Your task to perform on an android device: set the stopwatch Image 0: 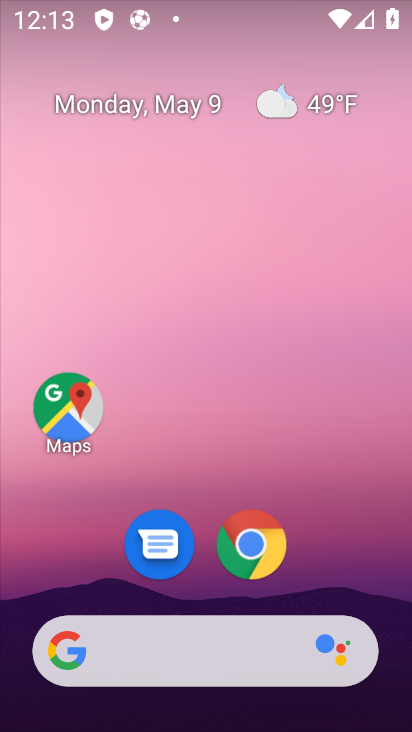
Step 0: drag from (303, 618) to (267, 85)
Your task to perform on an android device: set the stopwatch Image 1: 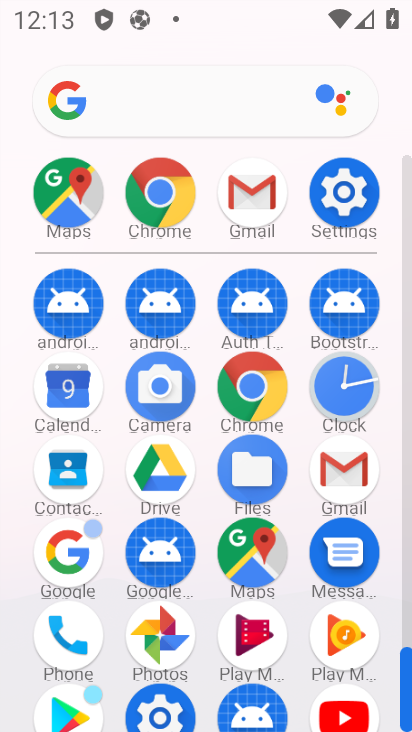
Step 1: click (359, 390)
Your task to perform on an android device: set the stopwatch Image 2: 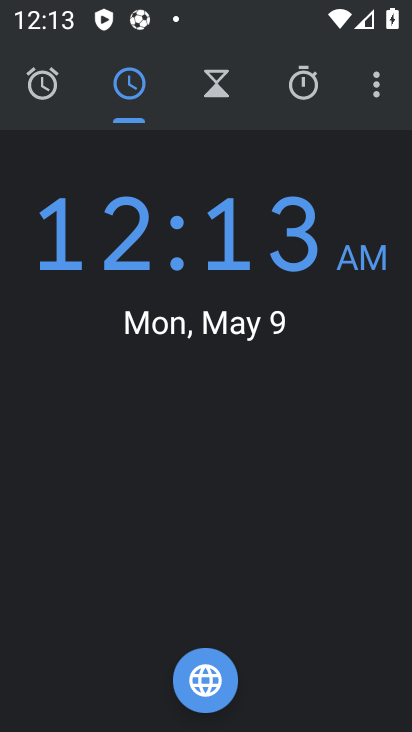
Step 2: click (300, 106)
Your task to perform on an android device: set the stopwatch Image 3: 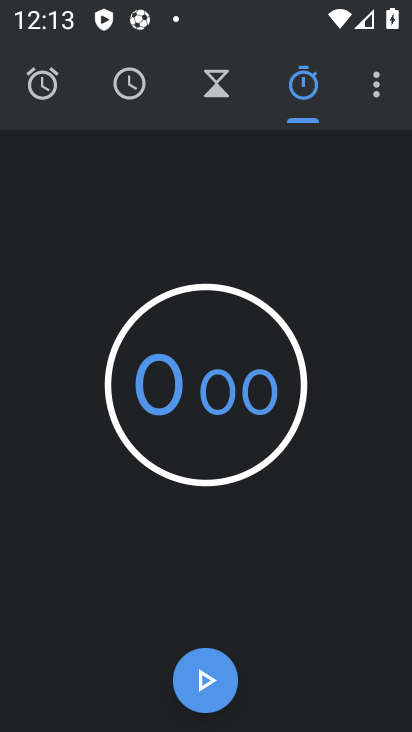
Step 3: click (205, 681)
Your task to perform on an android device: set the stopwatch Image 4: 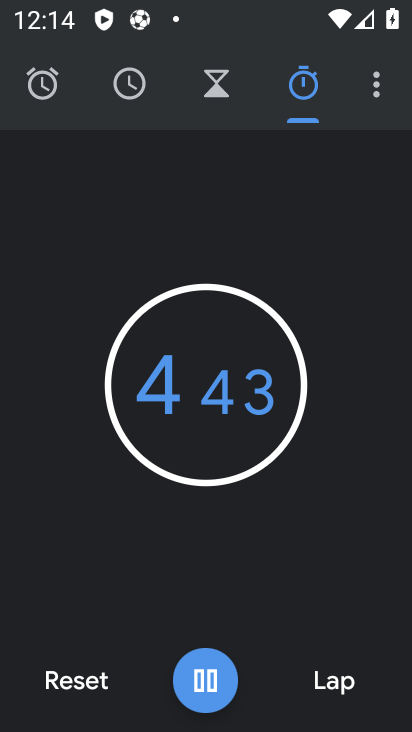
Step 4: task complete